Your task to perform on an android device: check battery use Image 0: 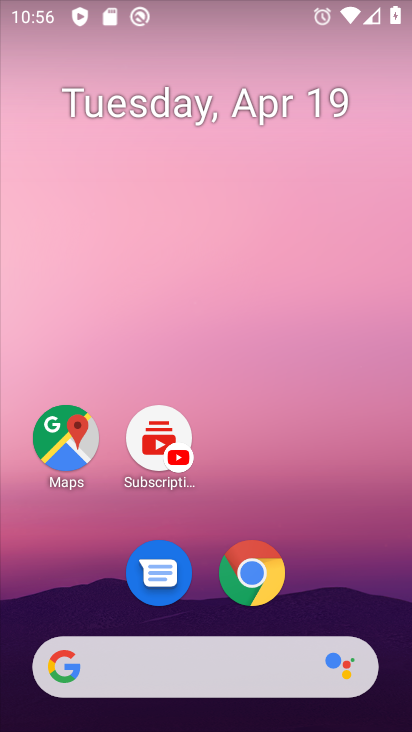
Step 0: drag from (347, 492) to (297, 123)
Your task to perform on an android device: check battery use Image 1: 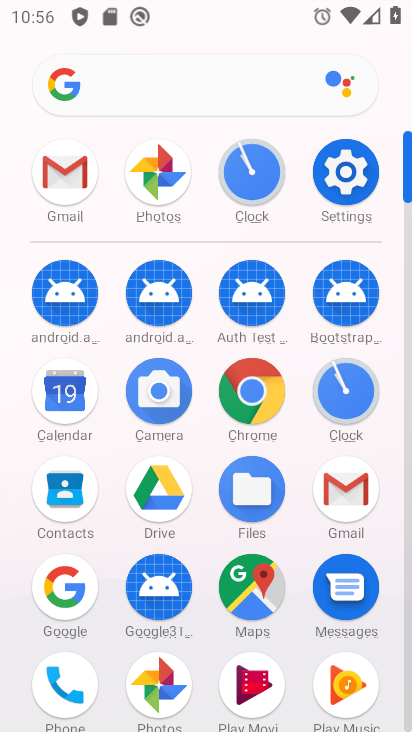
Step 1: click (345, 176)
Your task to perform on an android device: check battery use Image 2: 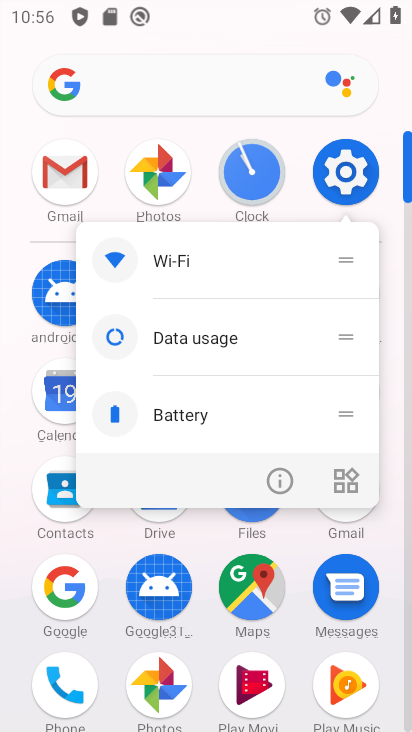
Step 2: click (345, 176)
Your task to perform on an android device: check battery use Image 3: 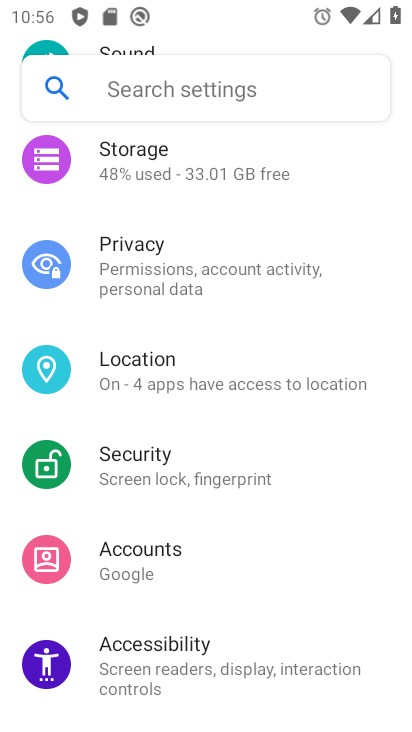
Step 3: drag from (177, 250) to (156, 654)
Your task to perform on an android device: check battery use Image 4: 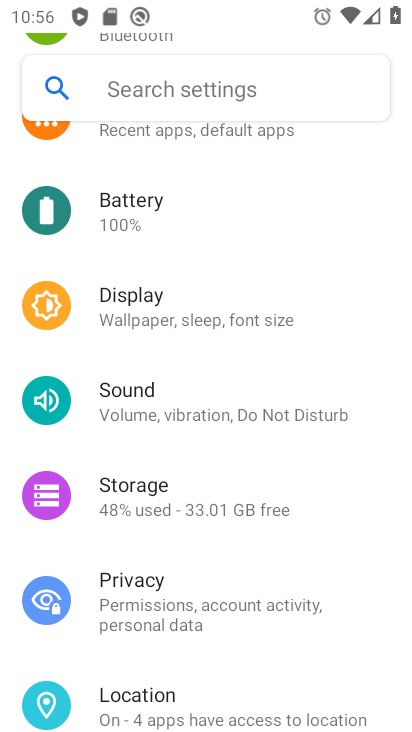
Step 4: click (146, 219)
Your task to perform on an android device: check battery use Image 5: 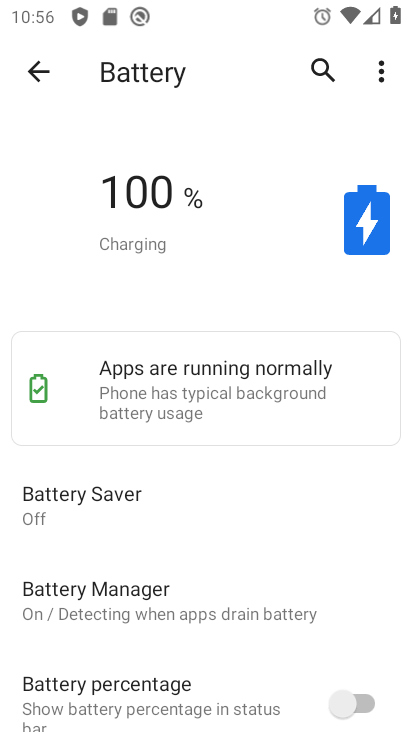
Step 5: drag from (209, 668) to (177, 598)
Your task to perform on an android device: check battery use Image 6: 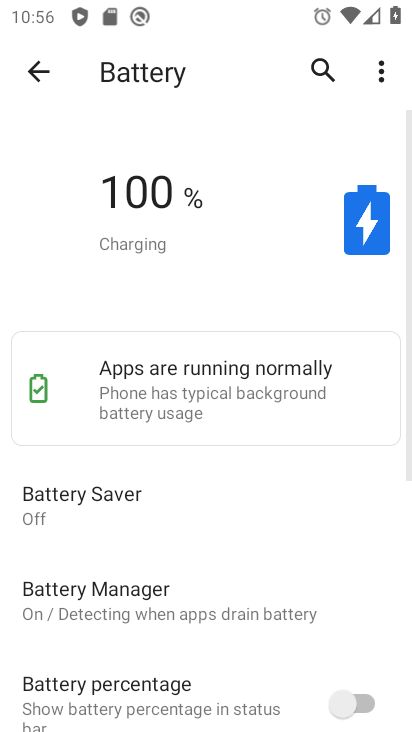
Step 6: click (162, 199)
Your task to perform on an android device: check battery use Image 7: 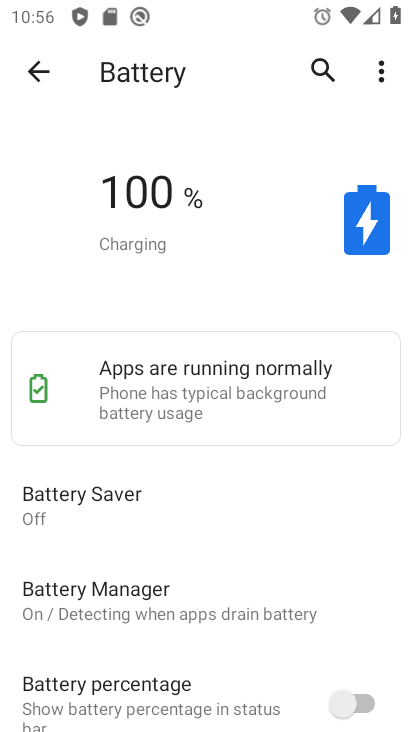
Step 7: click (155, 201)
Your task to perform on an android device: check battery use Image 8: 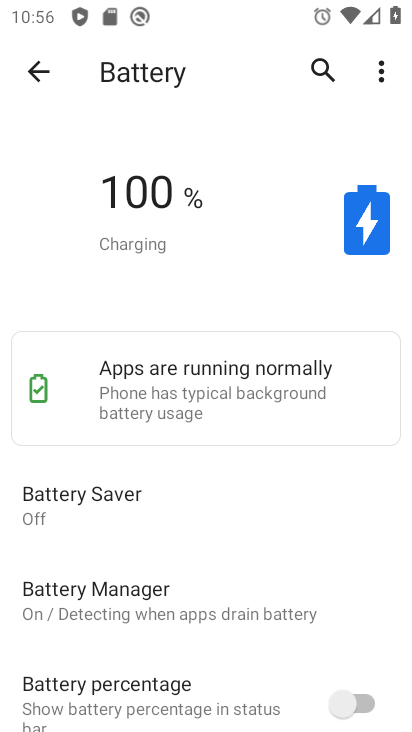
Step 8: click (155, 201)
Your task to perform on an android device: check battery use Image 9: 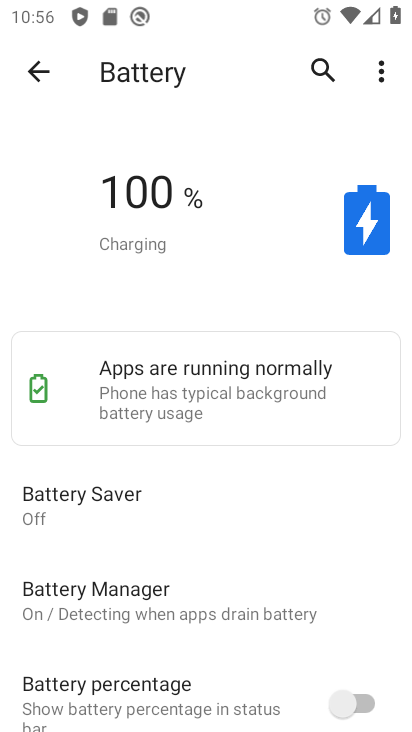
Step 9: task complete